Your task to perform on an android device: open a new tab in the chrome app Image 0: 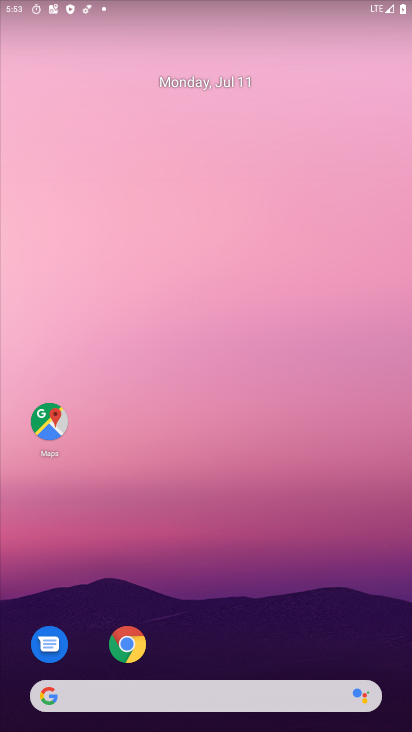
Step 0: drag from (198, 678) to (205, 6)
Your task to perform on an android device: open a new tab in the chrome app Image 1: 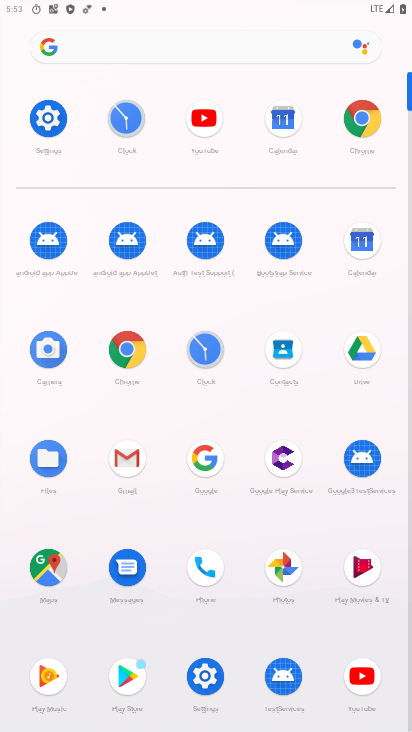
Step 1: click (127, 348)
Your task to perform on an android device: open a new tab in the chrome app Image 2: 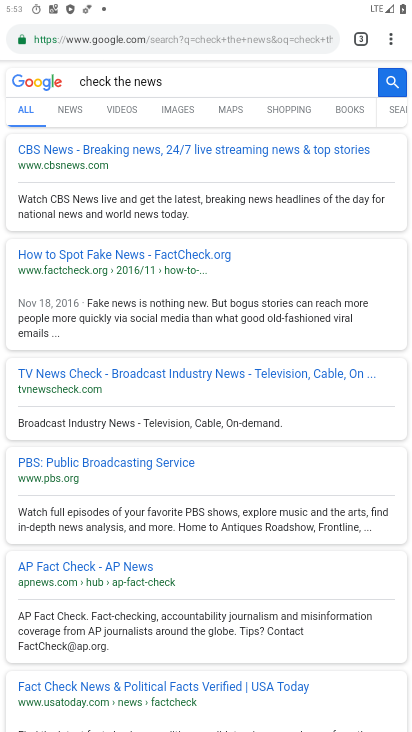
Step 2: task complete